Your task to perform on an android device: turn off airplane mode Image 0: 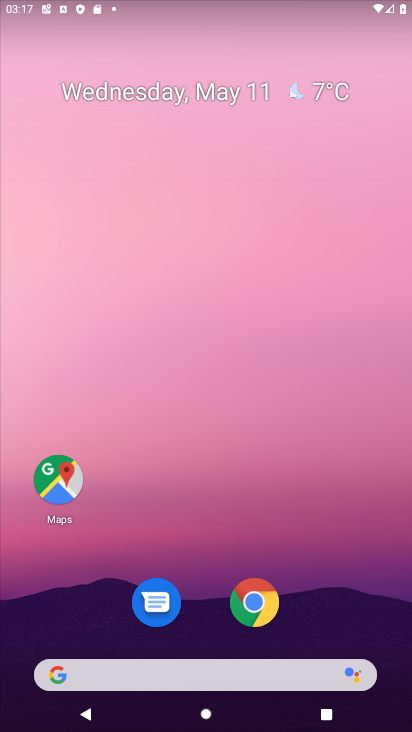
Step 0: drag from (315, 647) to (282, 308)
Your task to perform on an android device: turn off airplane mode Image 1: 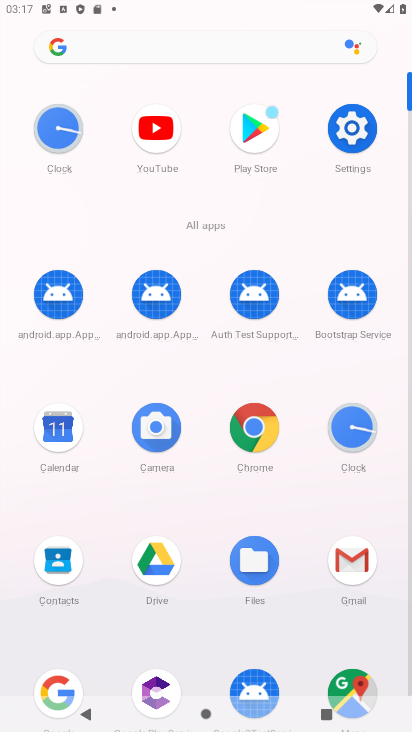
Step 1: task complete